Your task to perform on an android device: Go to location settings Image 0: 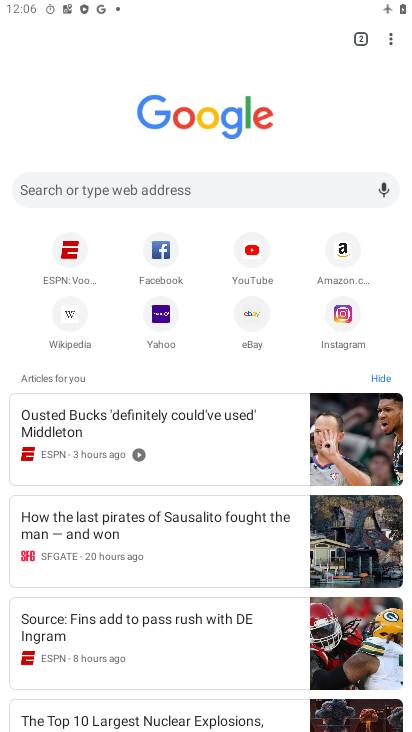
Step 0: drag from (395, 40) to (309, 335)
Your task to perform on an android device: Go to location settings Image 1: 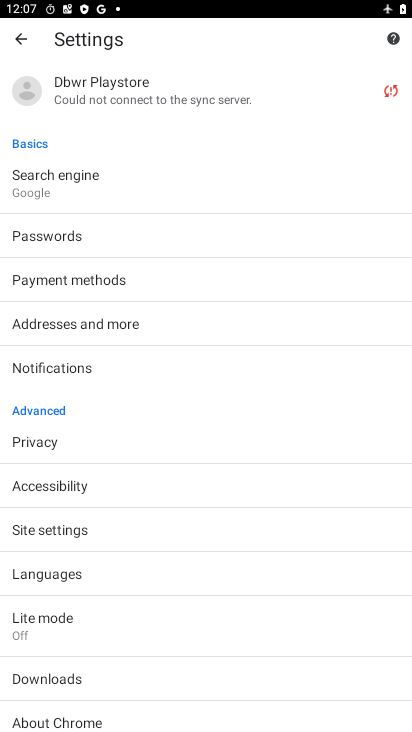
Step 1: click (106, 523)
Your task to perform on an android device: Go to location settings Image 2: 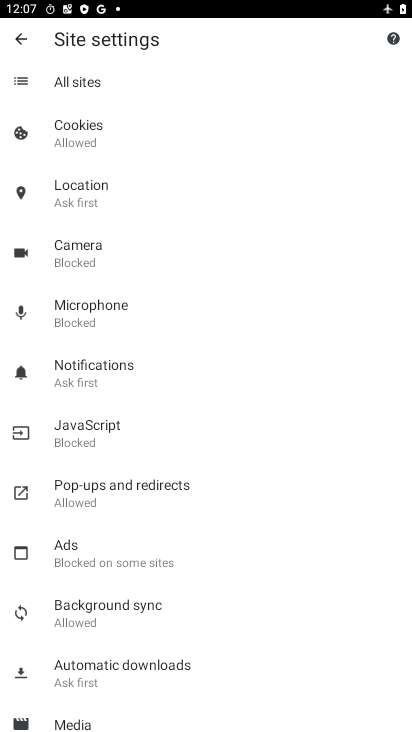
Step 2: click (149, 195)
Your task to perform on an android device: Go to location settings Image 3: 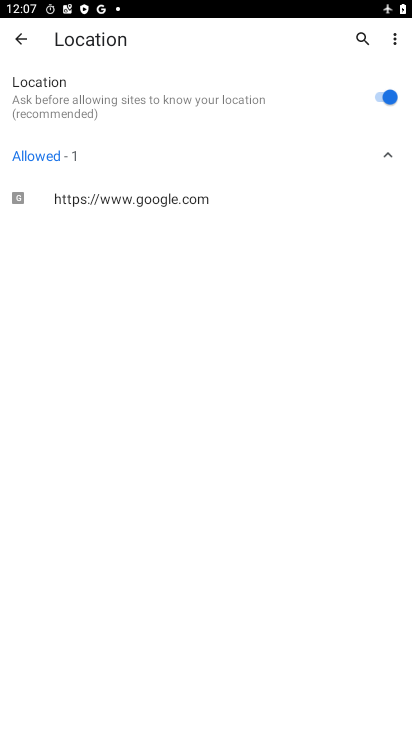
Step 3: task complete